Your task to perform on an android device: What's the weather going to be this weekend? Image 0: 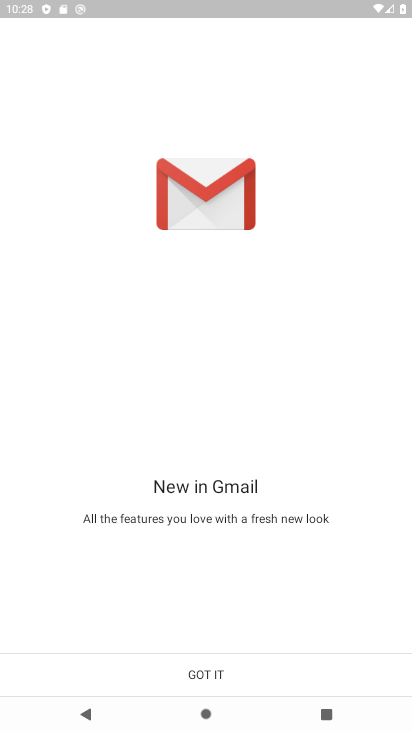
Step 0: press home button
Your task to perform on an android device: What's the weather going to be this weekend? Image 1: 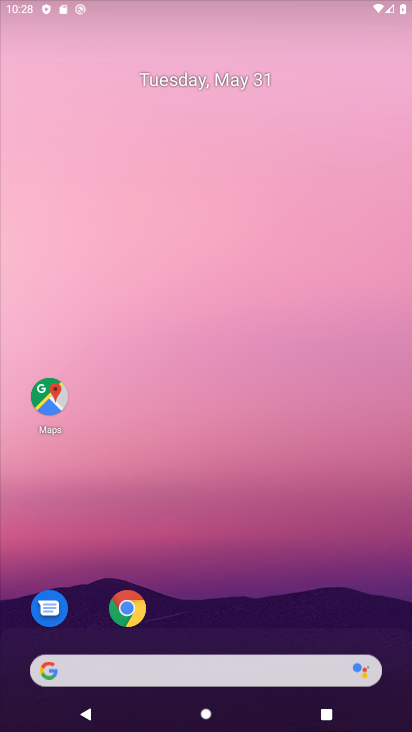
Step 1: drag from (351, 609) to (318, 104)
Your task to perform on an android device: What's the weather going to be this weekend? Image 2: 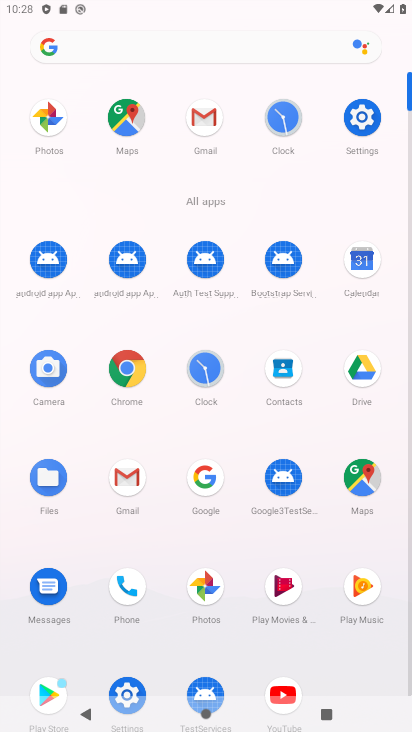
Step 2: click (125, 383)
Your task to perform on an android device: What's the weather going to be this weekend? Image 3: 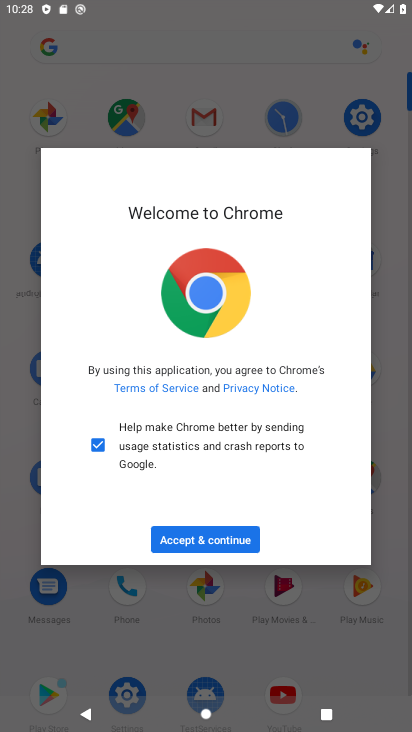
Step 3: click (225, 542)
Your task to perform on an android device: What's the weather going to be this weekend? Image 4: 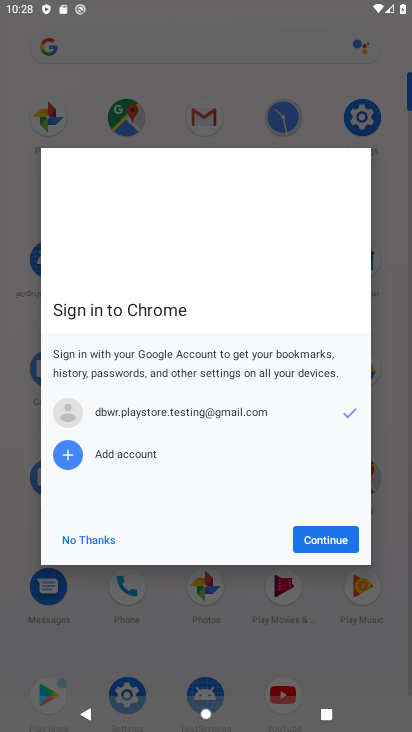
Step 4: click (331, 522)
Your task to perform on an android device: What's the weather going to be this weekend? Image 5: 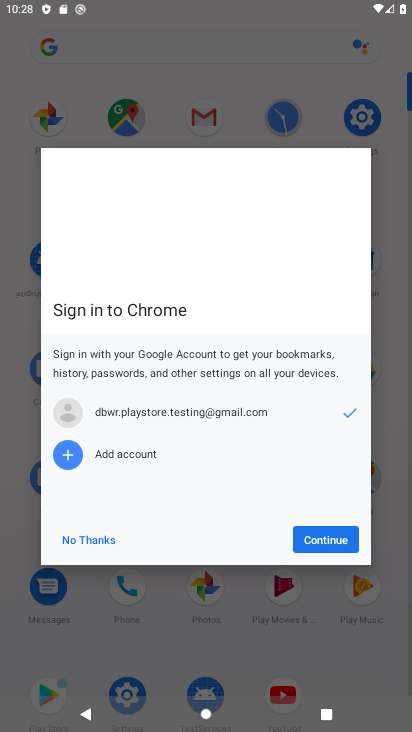
Step 5: click (333, 539)
Your task to perform on an android device: What's the weather going to be this weekend? Image 6: 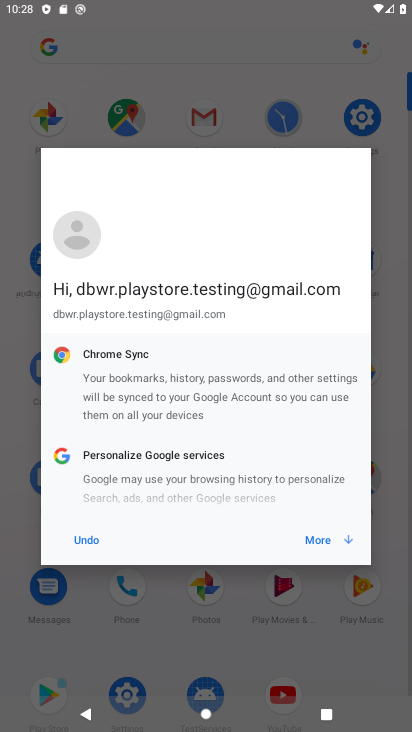
Step 6: click (333, 537)
Your task to perform on an android device: What's the weather going to be this weekend? Image 7: 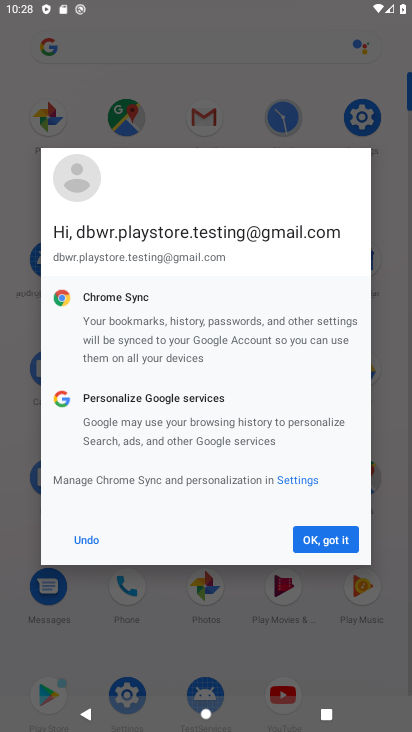
Step 7: click (332, 537)
Your task to perform on an android device: What's the weather going to be this weekend? Image 8: 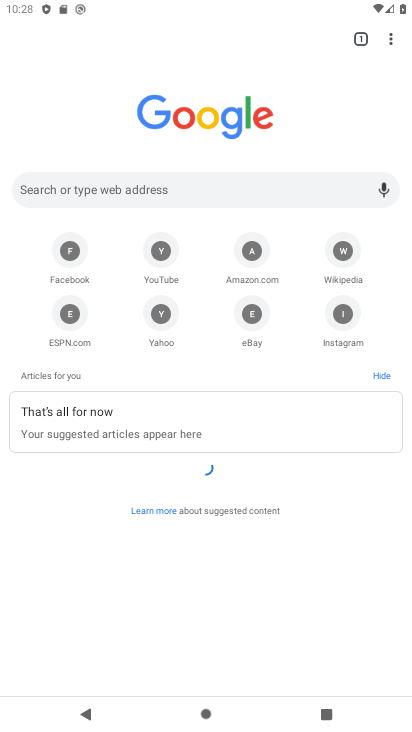
Step 8: click (186, 189)
Your task to perform on an android device: What's the weather going to be this weekend? Image 9: 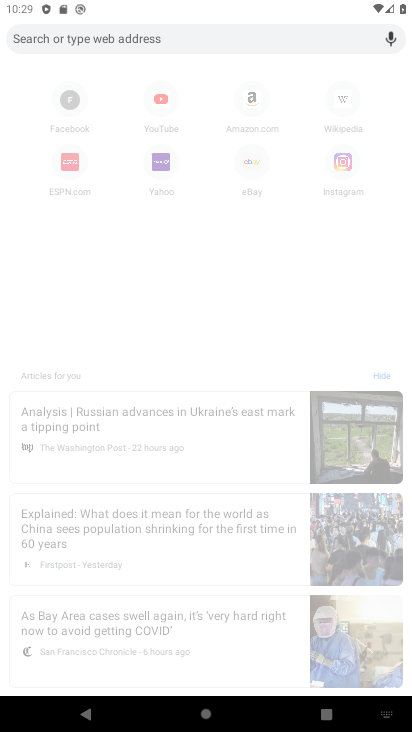
Step 9: type "what's  the weather going to be this weekend "
Your task to perform on an android device: What's the weather going to be this weekend? Image 10: 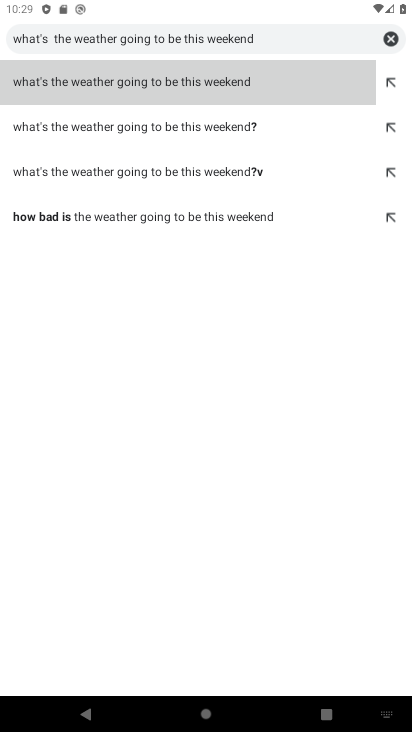
Step 10: click (187, 98)
Your task to perform on an android device: What's the weather going to be this weekend? Image 11: 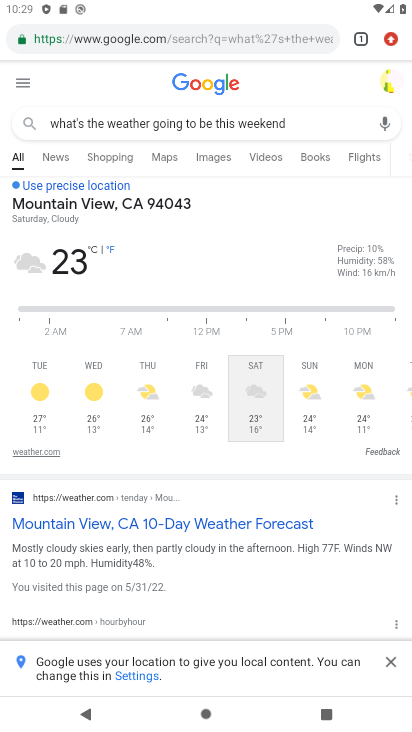
Step 11: task complete